Your task to perform on an android device: change the clock style Image 0: 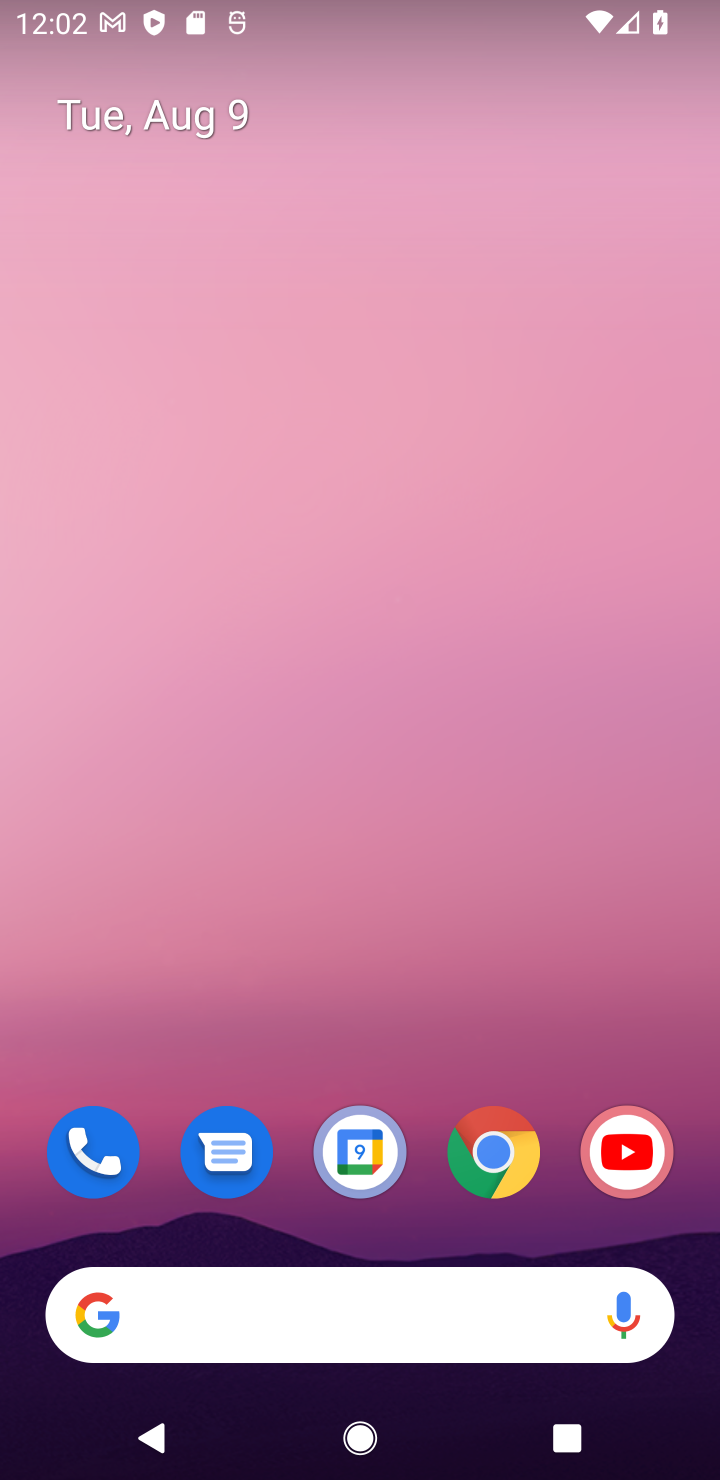
Step 0: drag from (553, 1079) to (461, 485)
Your task to perform on an android device: change the clock style Image 1: 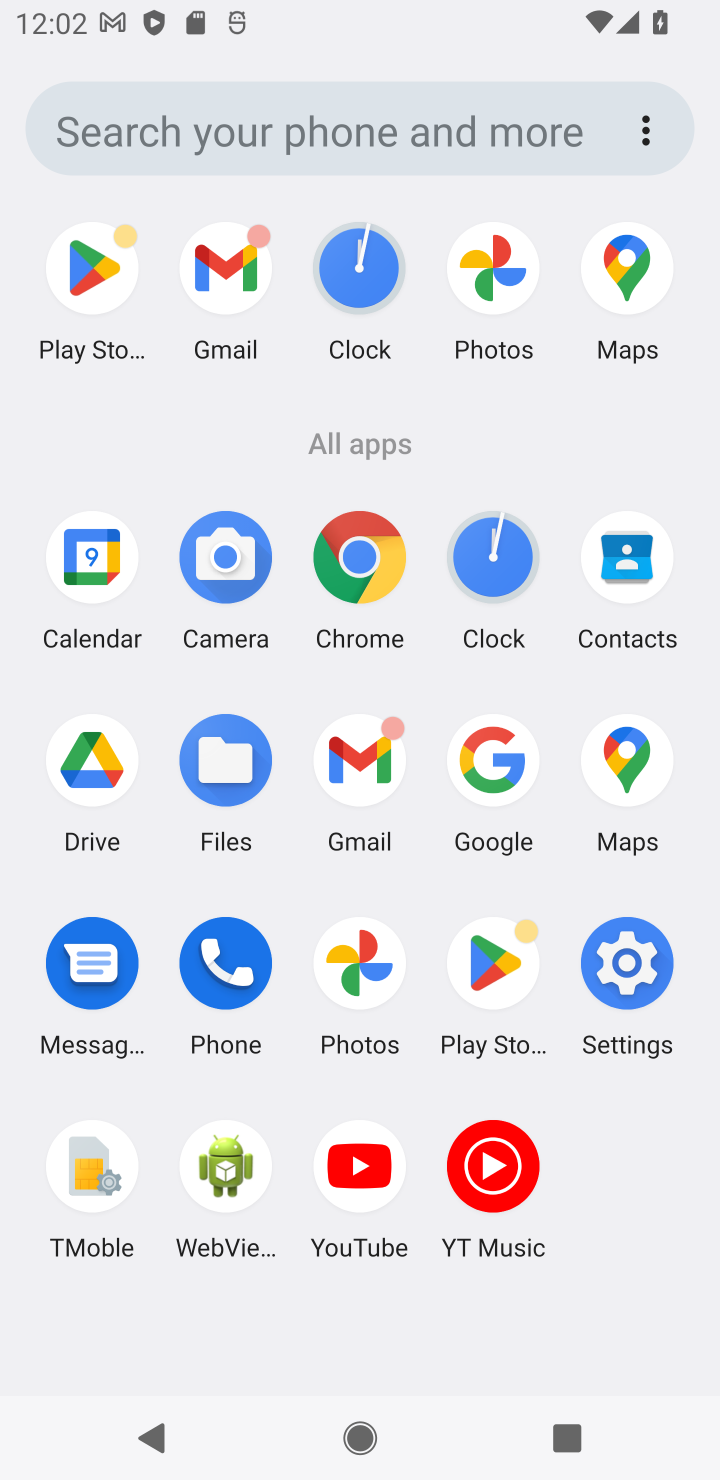
Step 1: click (474, 588)
Your task to perform on an android device: change the clock style Image 2: 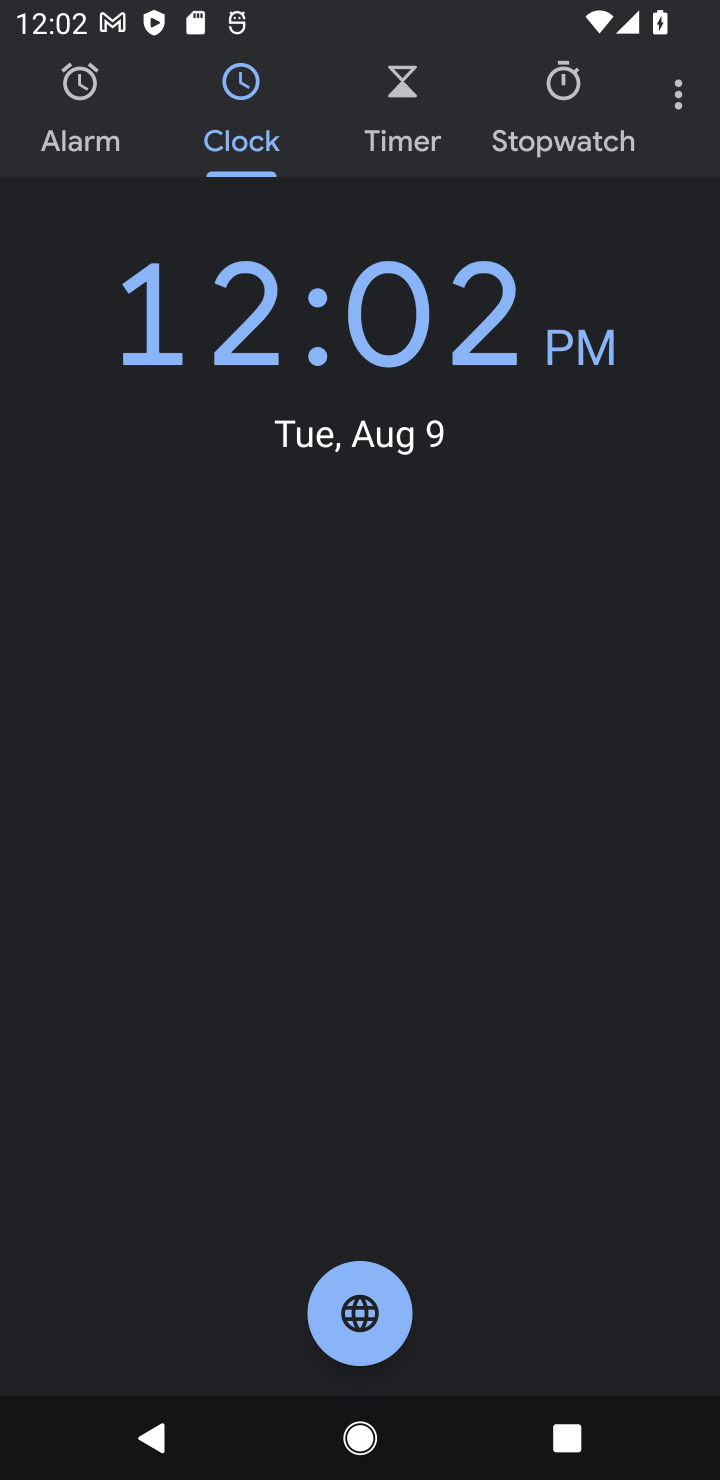
Step 2: click (702, 99)
Your task to perform on an android device: change the clock style Image 3: 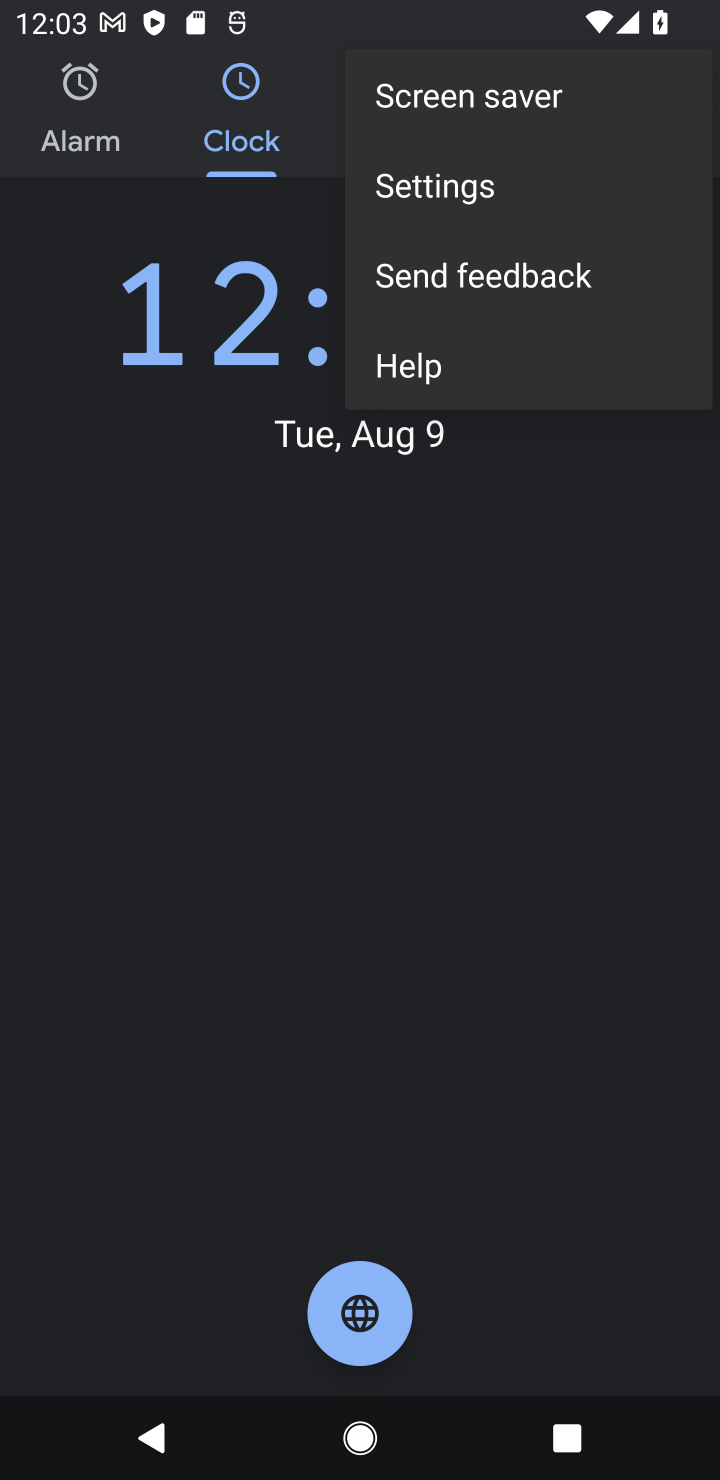
Step 3: click (403, 196)
Your task to perform on an android device: change the clock style Image 4: 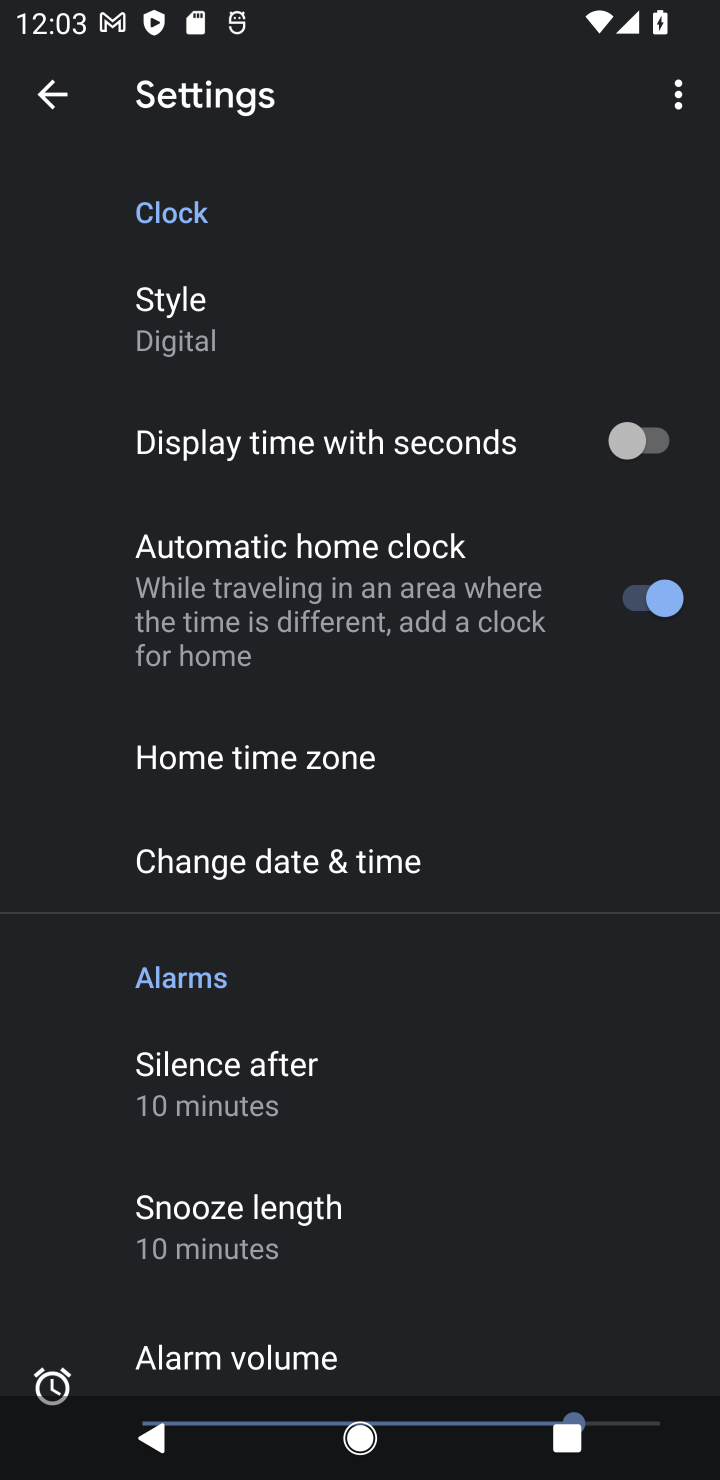
Step 4: click (282, 298)
Your task to perform on an android device: change the clock style Image 5: 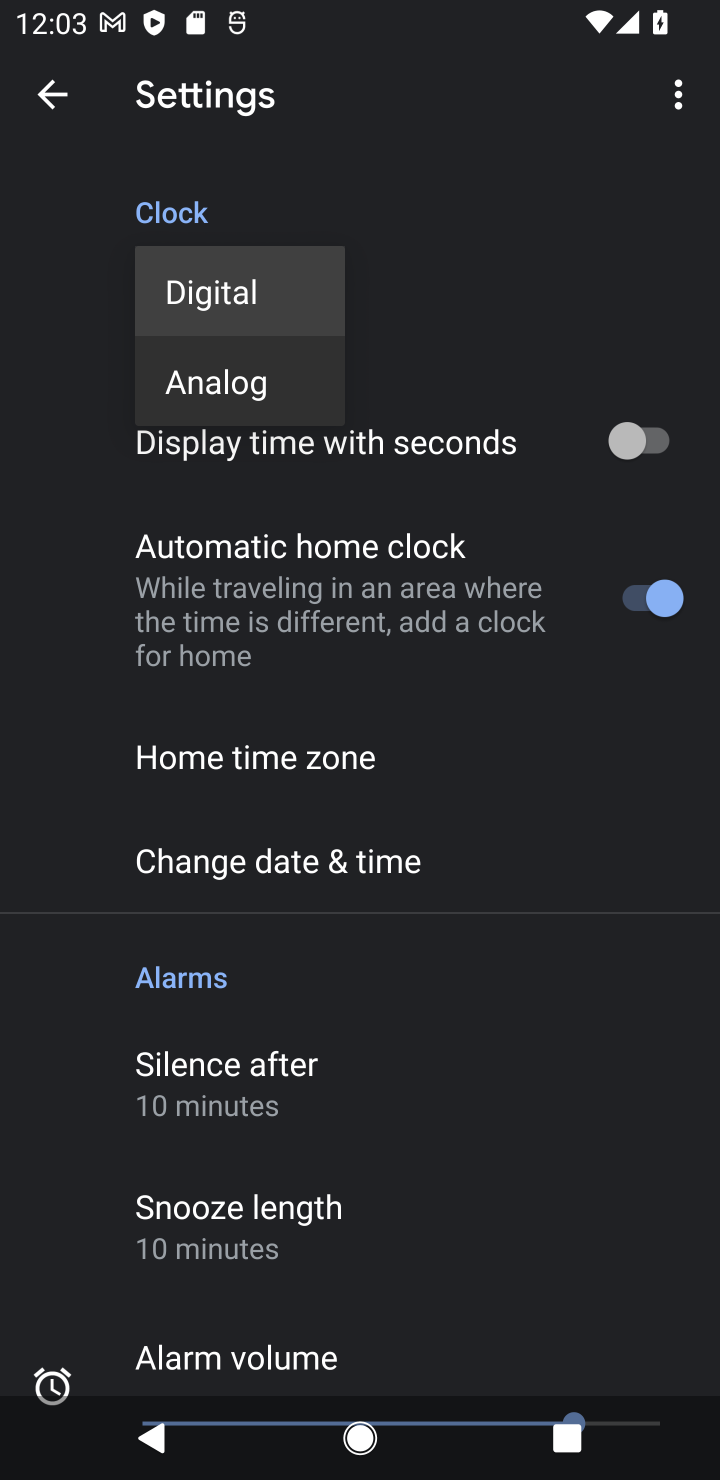
Step 5: click (282, 378)
Your task to perform on an android device: change the clock style Image 6: 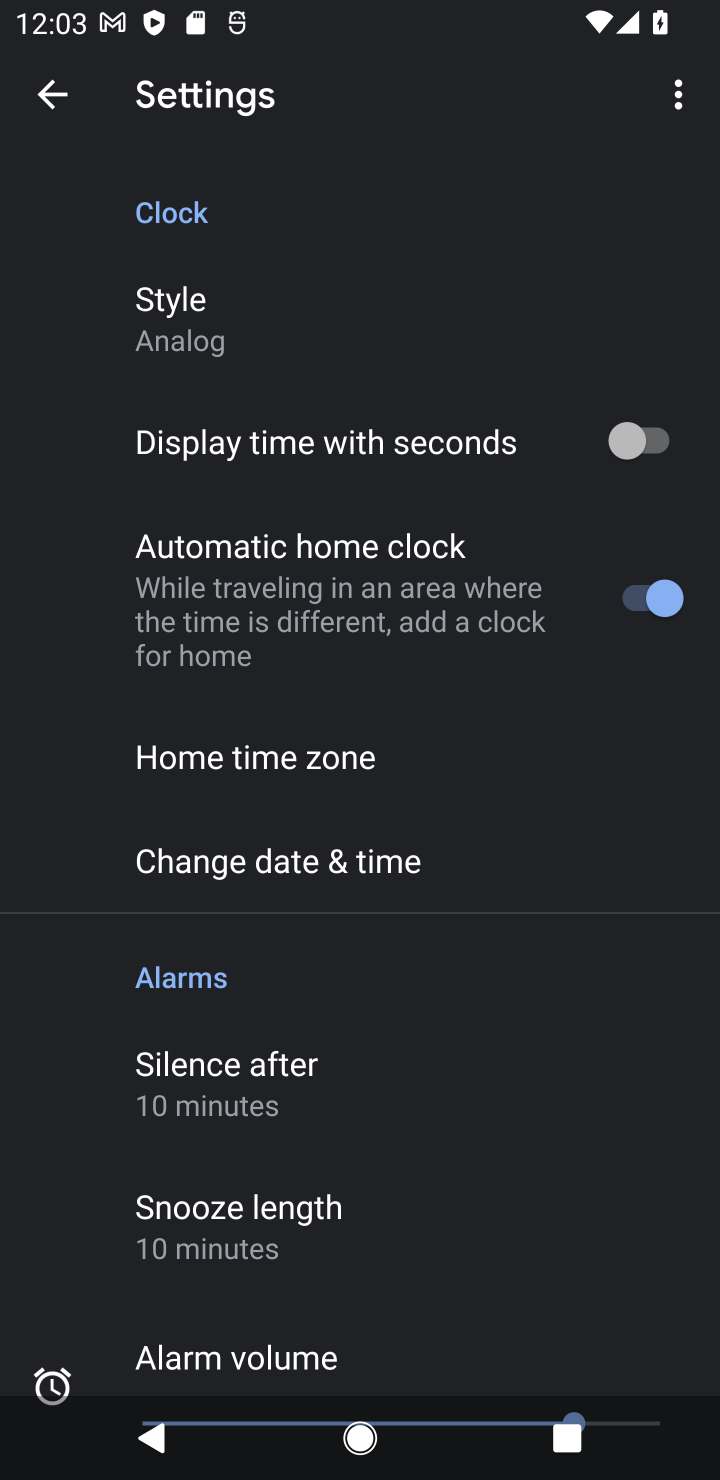
Step 6: task complete